Your task to perform on an android device: View the shopping cart on target. Add "acer nitro" to the cart on target, then select checkout. Image 0: 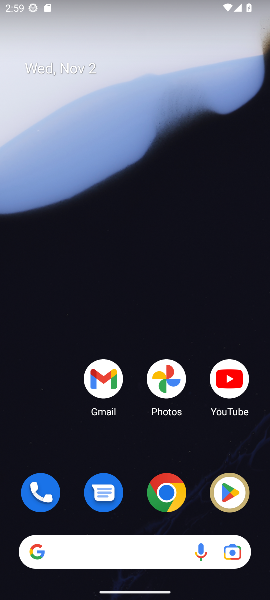
Step 0: click (167, 492)
Your task to perform on an android device: View the shopping cart on target. Add "acer nitro" to the cart on target, then select checkout. Image 1: 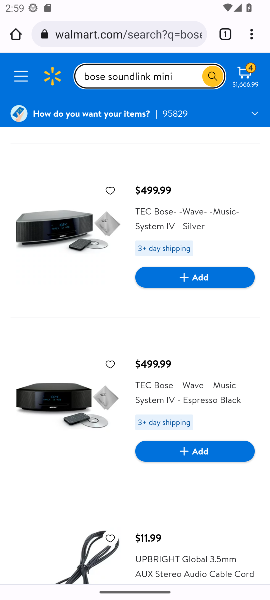
Step 1: click (137, 21)
Your task to perform on an android device: View the shopping cart on target. Add "acer nitro" to the cart on target, then select checkout. Image 2: 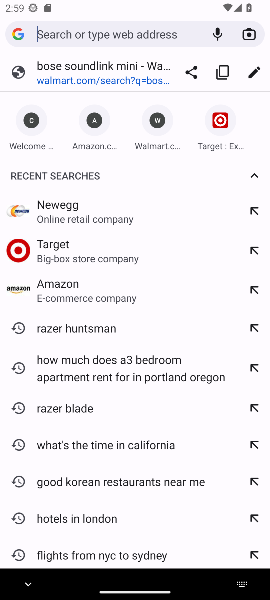
Step 2: type "target"
Your task to perform on an android device: View the shopping cart on target. Add "acer nitro" to the cart on target, then select checkout. Image 3: 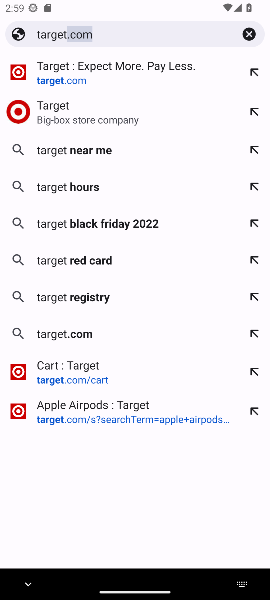
Step 3: click (55, 67)
Your task to perform on an android device: View the shopping cart on target. Add "acer nitro" to the cart on target, then select checkout. Image 4: 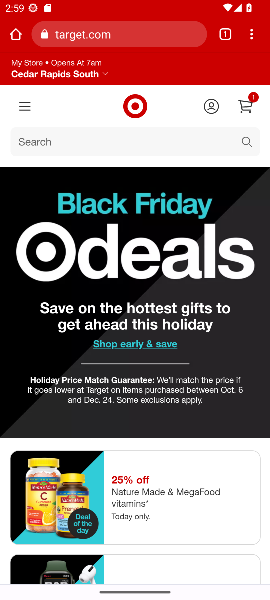
Step 4: click (246, 103)
Your task to perform on an android device: View the shopping cart on target. Add "acer nitro" to the cart on target, then select checkout. Image 5: 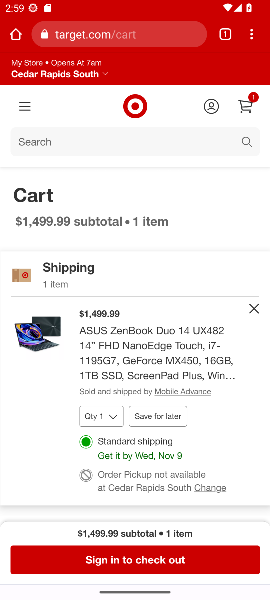
Step 5: drag from (228, 485) to (201, 266)
Your task to perform on an android device: View the shopping cart on target. Add "acer nitro" to the cart on target, then select checkout. Image 6: 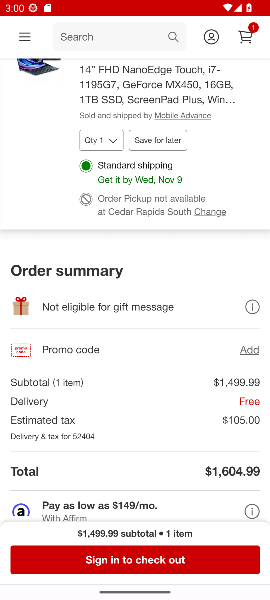
Step 6: drag from (213, 128) to (163, 400)
Your task to perform on an android device: View the shopping cart on target. Add "acer nitro" to the cart on target, then select checkout. Image 7: 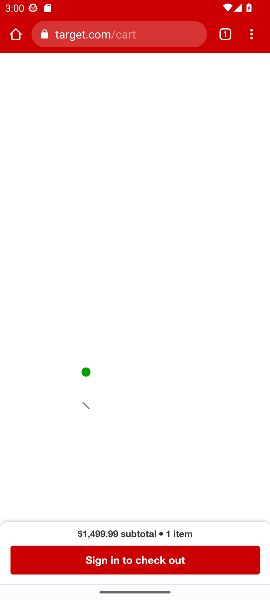
Step 7: press back button
Your task to perform on an android device: View the shopping cart on target. Add "acer nitro" to the cart on target, then select checkout. Image 8: 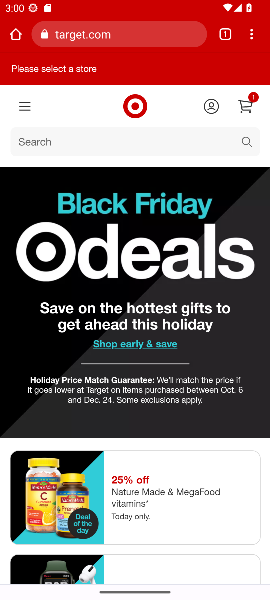
Step 8: click (42, 133)
Your task to perform on an android device: View the shopping cart on target. Add "acer nitro" to the cart on target, then select checkout. Image 9: 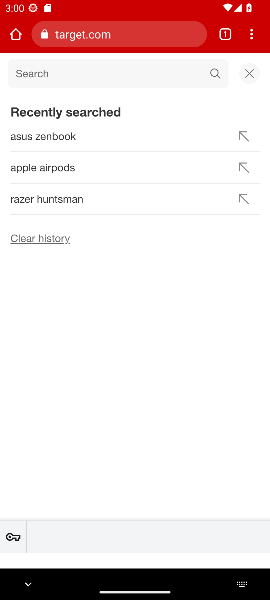
Step 9: type "acer nitro"
Your task to perform on an android device: View the shopping cart on target. Add "acer nitro" to the cart on target, then select checkout. Image 10: 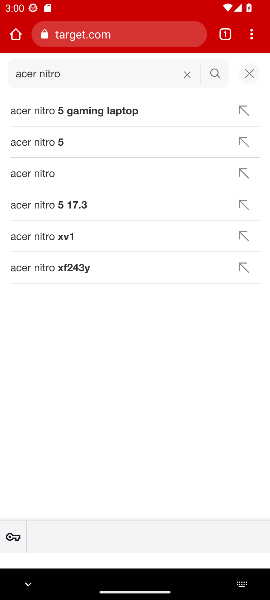
Step 10: click (34, 168)
Your task to perform on an android device: View the shopping cart on target. Add "acer nitro" to the cart on target, then select checkout. Image 11: 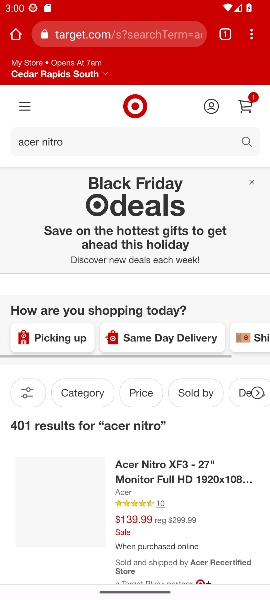
Step 11: drag from (156, 448) to (166, 186)
Your task to perform on an android device: View the shopping cart on target. Add "acer nitro" to the cart on target, then select checkout. Image 12: 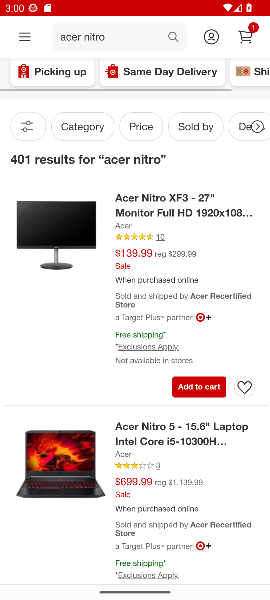
Step 12: click (200, 388)
Your task to perform on an android device: View the shopping cart on target. Add "acer nitro" to the cart on target, then select checkout. Image 13: 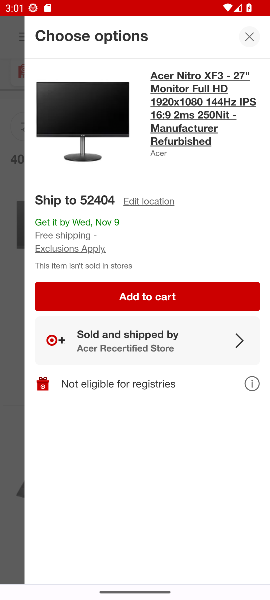
Step 13: click (140, 299)
Your task to perform on an android device: View the shopping cart on target. Add "acer nitro" to the cart on target, then select checkout. Image 14: 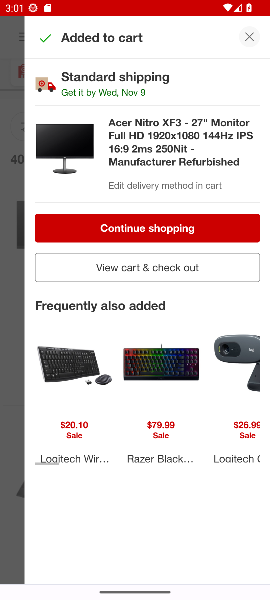
Step 14: click (148, 266)
Your task to perform on an android device: View the shopping cart on target. Add "acer nitro" to the cart on target, then select checkout. Image 15: 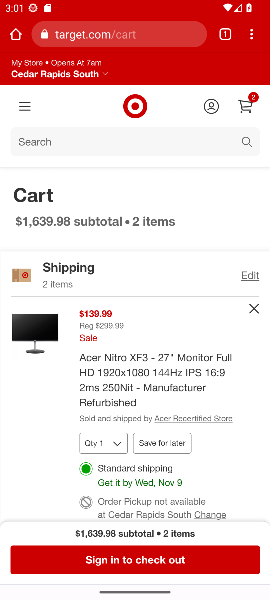
Step 15: click (144, 554)
Your task to perform on an android device: View the shopping cart on target. Add "acer nitro" to the cart on target, then select checkout. Image 16: 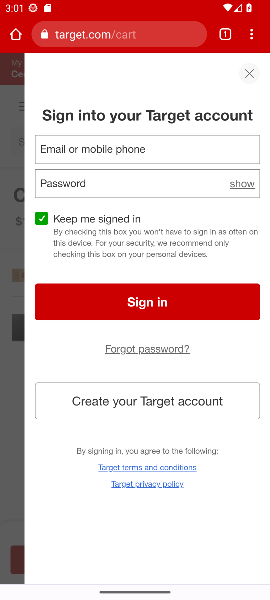
Step 16: task complete